Your task to perform on an android device: toggle notification dots Image 0: 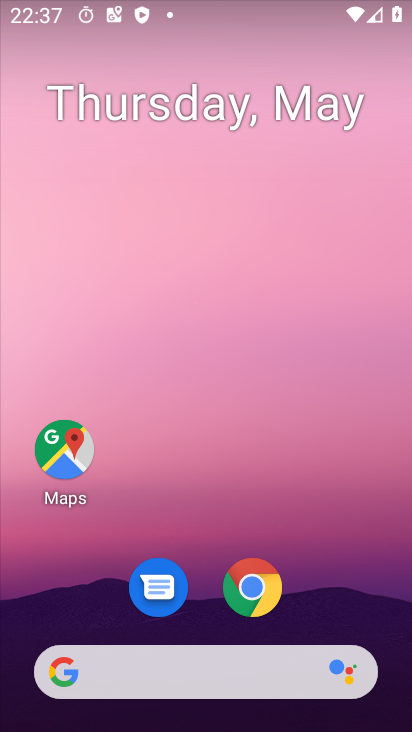
Step 0: drag from (356, 636) to (359, 9)
Your task to perform on an android device: toggle notification dots Image 1: 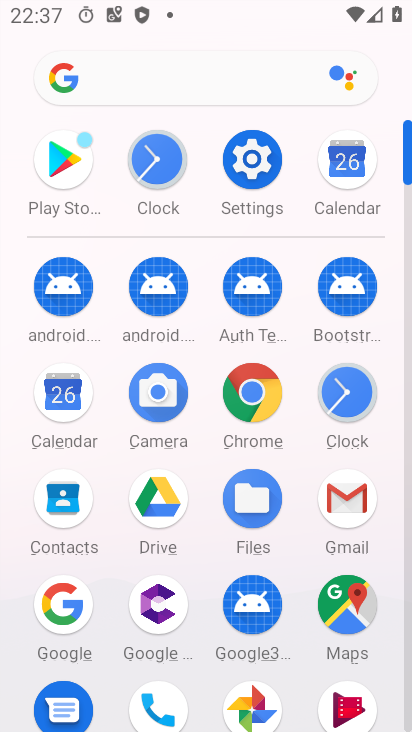
Step 1: click (248, 160)
Your task to perform on an android device: toggle notification dots Image 2: 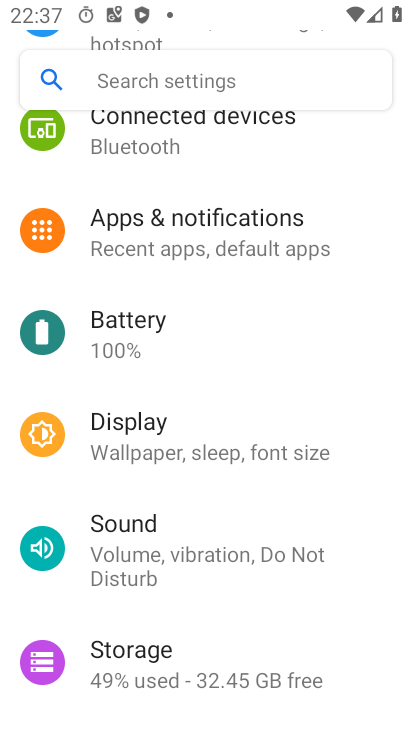
Step 2: click (213, 222)
Your task to perform on an android device: toggle notification dots Image 3: 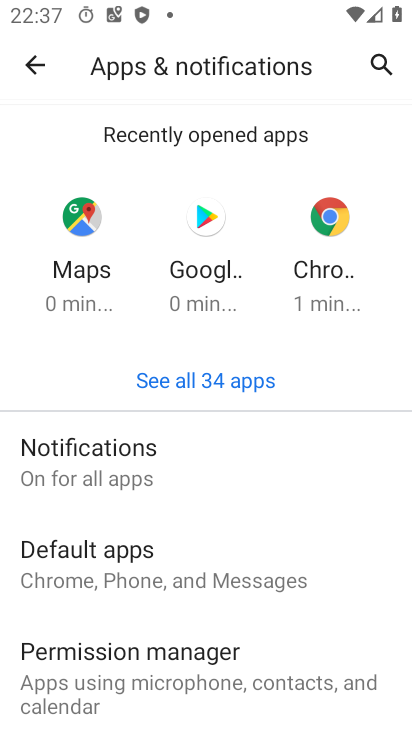
Step 3: click (109, 463)
Your task to perform on an android device: toggle notification dots Image 4: 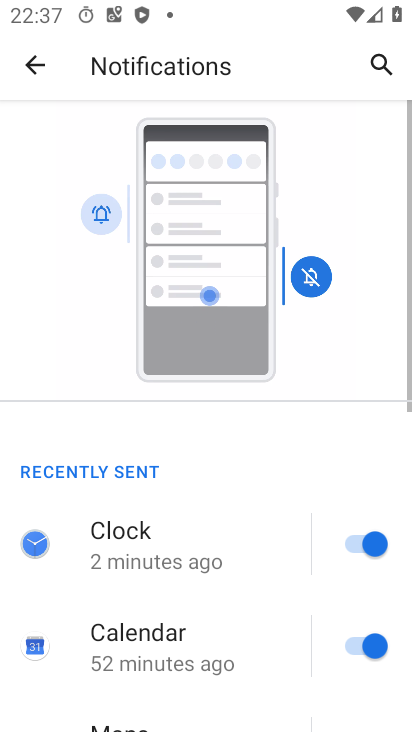
Step 4: drag from (170, 599) to (187, 112)
Your task to perform on an android device: toggle notification dots Image 5: 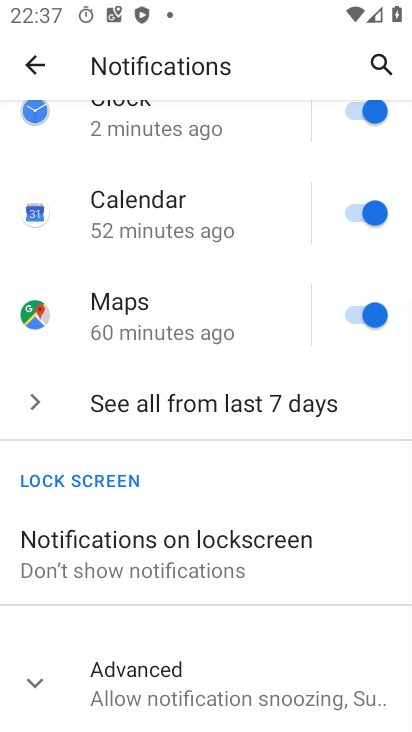
Step 5: drag from (168, 481) to (146, 132)
Your task to perform on an android device: toggle notification dots Image 6: 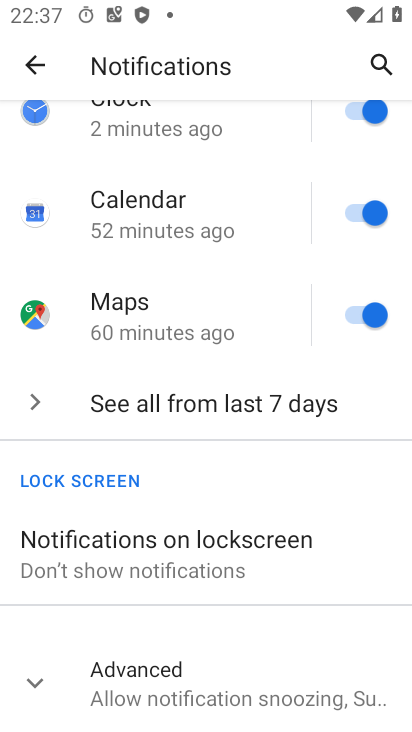
Step 6: click (30, 703)
Your task to perform on an android device: toggle notification dots Image 7: 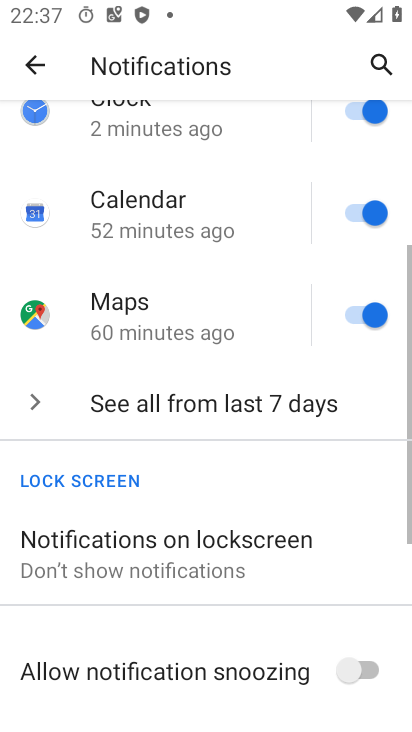
Step 7: drag from (158, 649) to (147, 359)
Your task to perform on an android device: toggle notification dots Image 8: 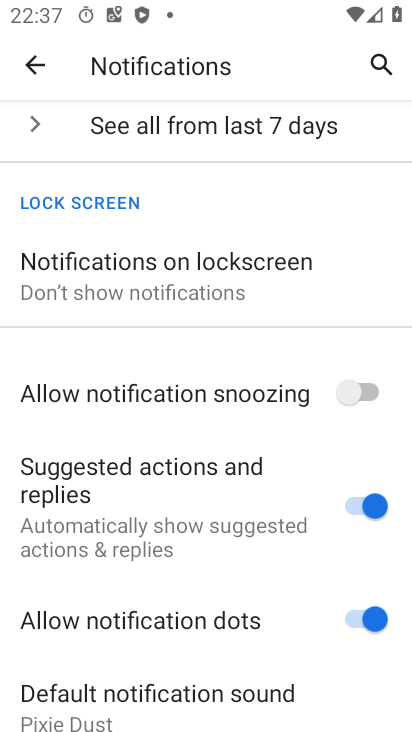
Step 8: click (373, 632)
Your task to perform on an android device: toggle notification dots Image 9: 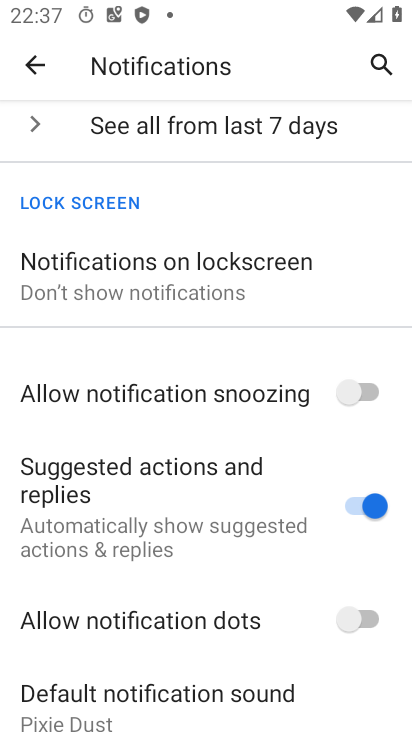
Step 9: task complete